Your task to perform on an android device: delete a single message in the gmail app Image 0: 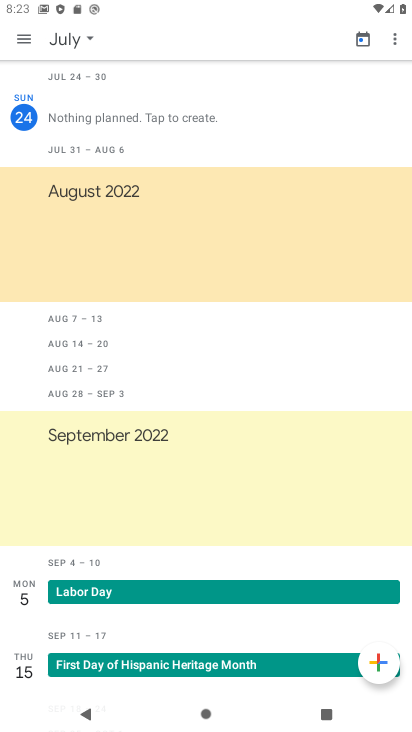
Step 0: press back button
Your task to perform on an android device: delete a single message in the gmail app Image 1: 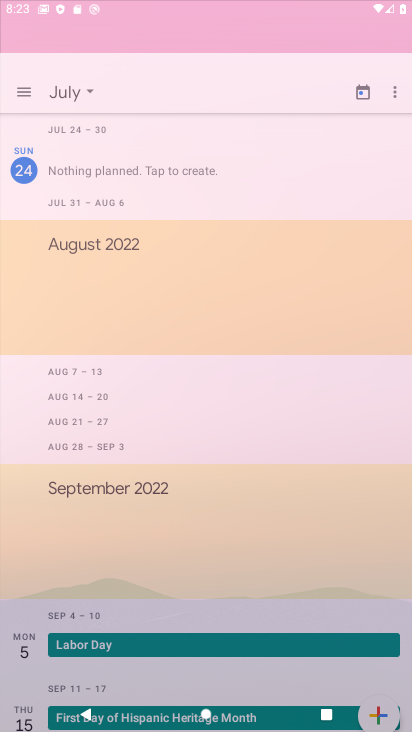
Step 1: press home button
Your task to perform on an android device: delete a single message in the gmail app Image 2: 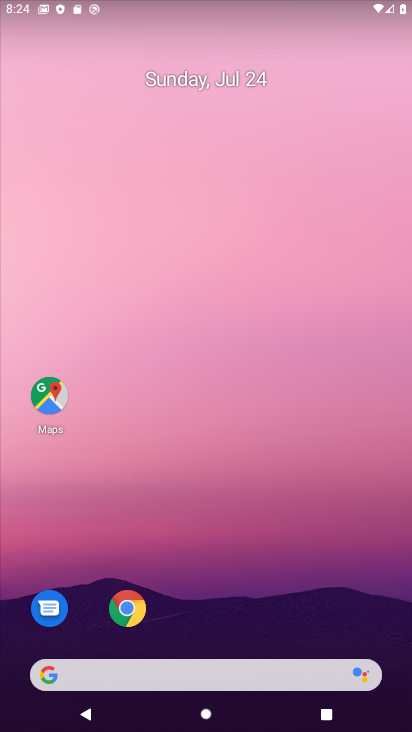
Step 2: drag from (356, 424) to (325, 4)
Your task to perform on an android device: delete a single message in the gmail app Image 3: 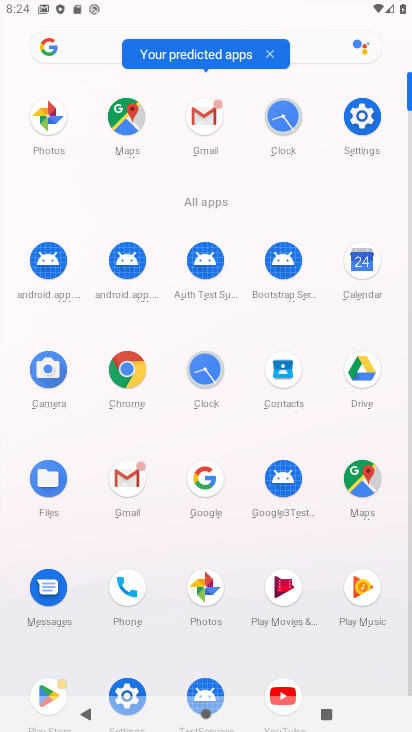
Step 3: click (124, 477)
Your task to perform on an android device: delete a single message in the gmail app Image 4: 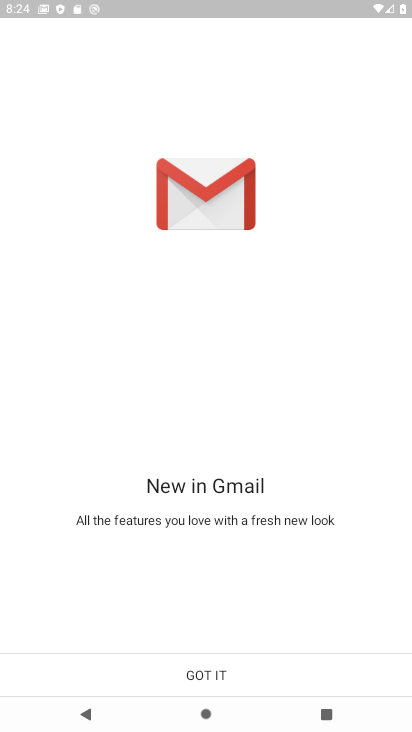
Step 4: click (224, 677)
Your task to perform on an android device: delete a single message in the gmail app Image 5: 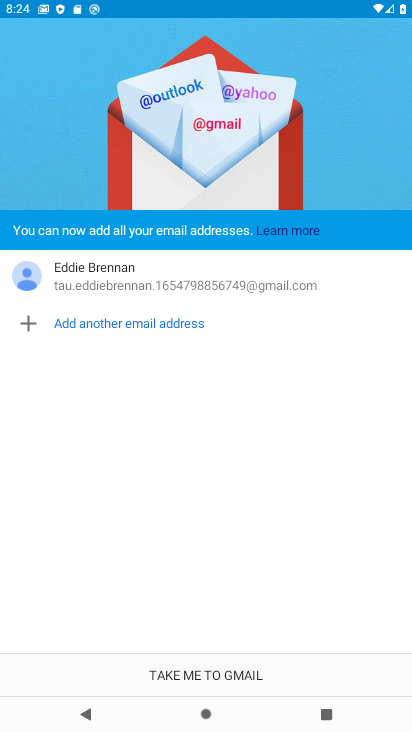
Step 5: click (224, 677)
Your task to perform on an android device: delete a single message in the gmail app Image 6: 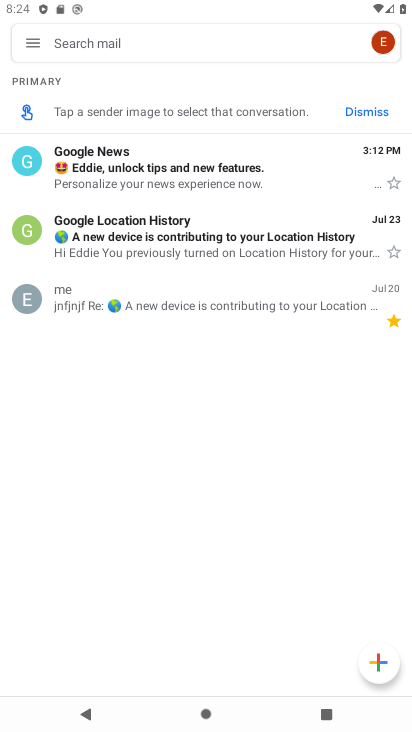
Step 6: click (200, 173)
Your task to perform on an android device: delete a single message in the gmail app Image 7: 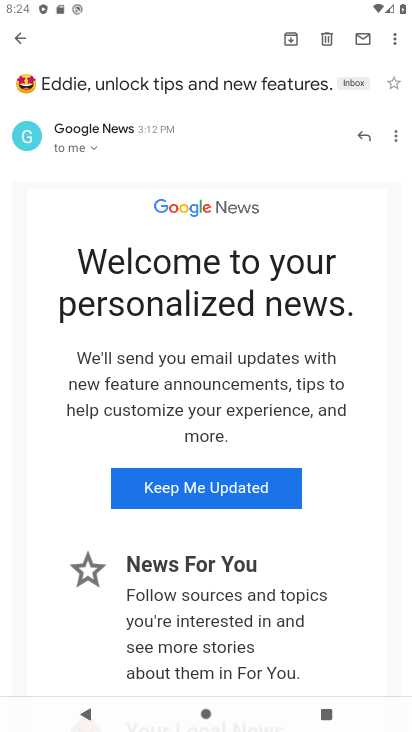
Step 7: click (325, 42)
Your task to perform on an android device: delete a single message in the gmail app Image 8: 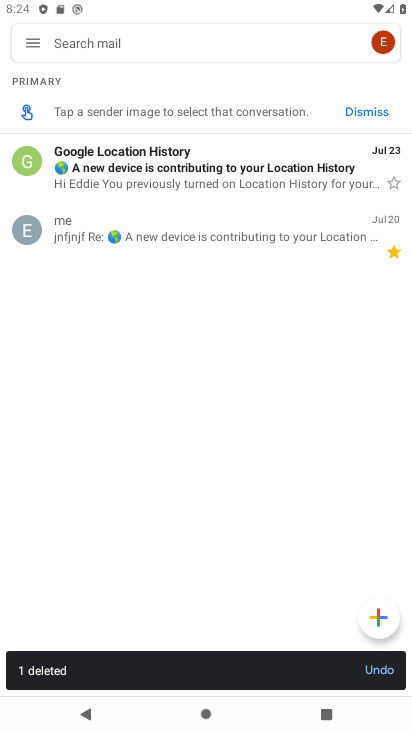
Step 8: task complete